Your task to perform on an android device: toggle show notifications on the lock screen Image 0: 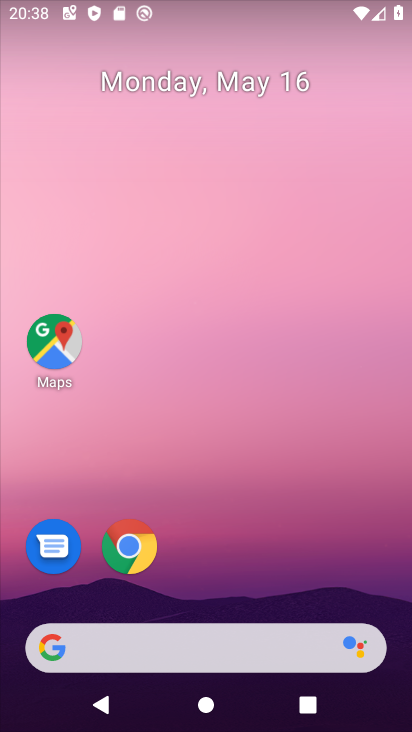
Step 0: drag from (268, 580) to (305, 247)
Your task to perform on an android device: toggle show notifications on the lock screen Image 1: 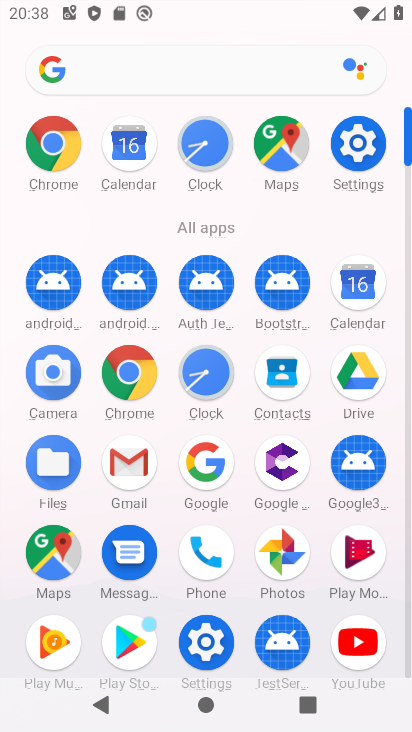
Step 1: click (354, 159)
Your task to perform on an android device: toggle show notifications on the lock screen Image 2: 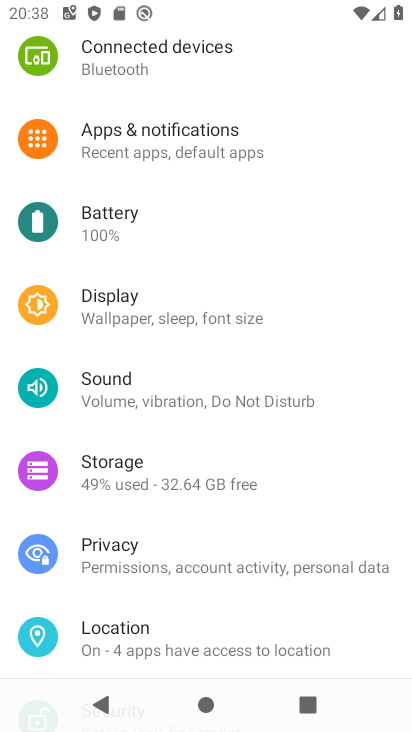
Step 2: drag from (266, 123) to (267, 204)
Your task to perform on an android device: toggle show notifications on the lock screen Image 3: 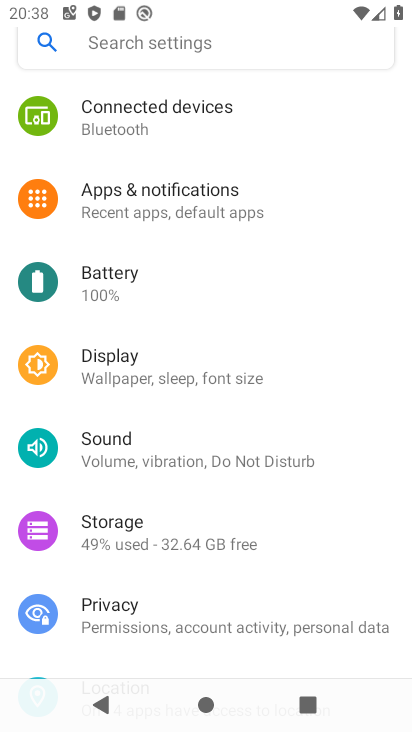
Step 3: click (256, 209)
Your task to perform on an android device: toggle show notifications on the lock screen Image 4: 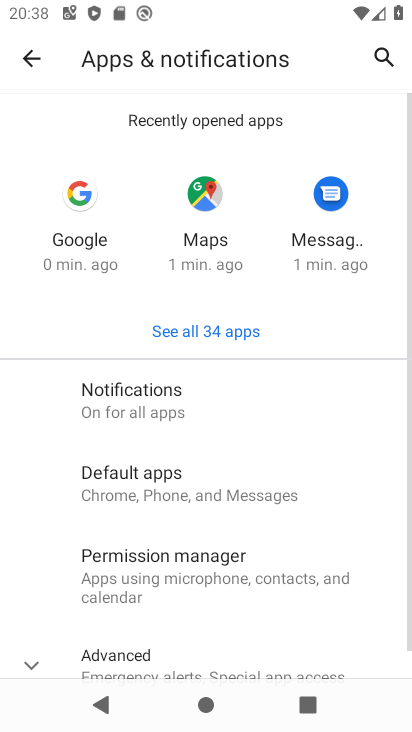
Step 4: click (231, 443)
Your task to perform on an android device: toggle show notifications on the lock screen Image 5: 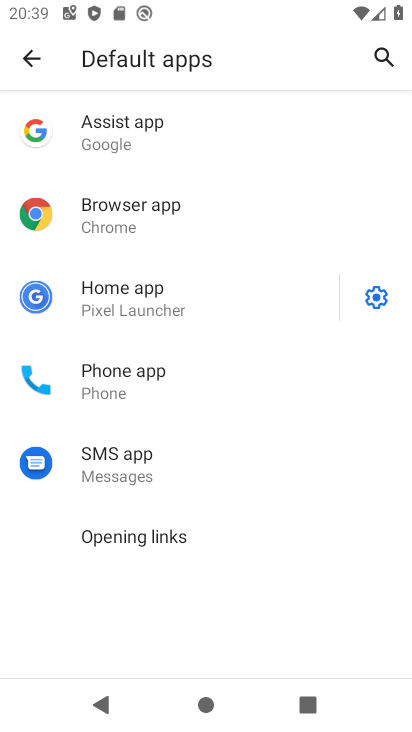
Step 5: click (22, 66)
Your task to perform on an android device: toggle show notifications on the lock screen Image 6: 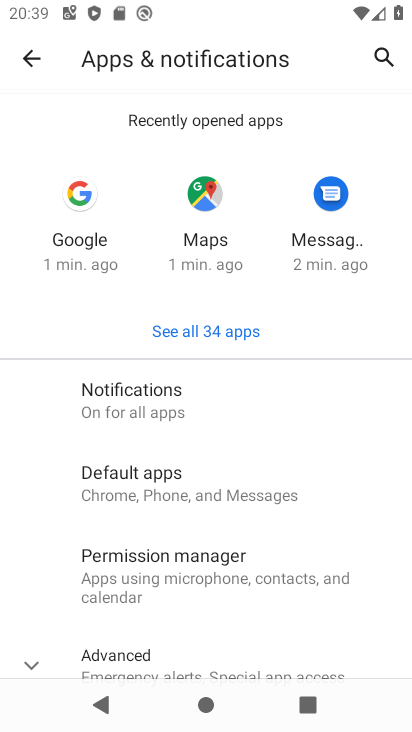
Step 6: click (247, 411)
Your task to perform on an android device: toggle show notifications on the lock screen Image 7: 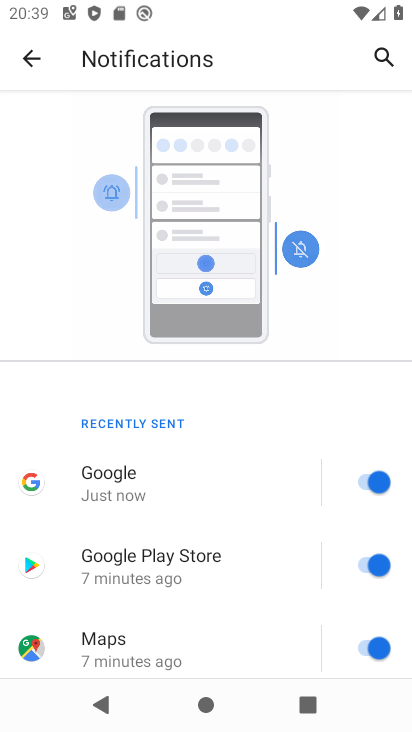
Step 7: drag from (267, 670) to (284, 349)
Your task to perform on an android device: toggle show notifications on the lock screen Image 8: 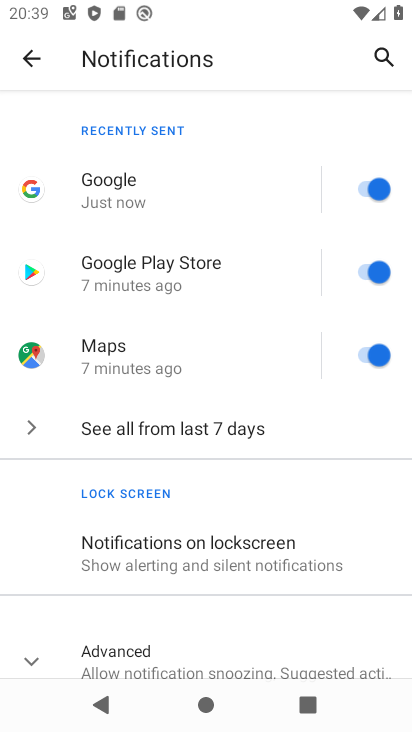
Step 8: click (275, 574)
Your task to perform on an android device: toggle show notifications on the lock screen Image 9: 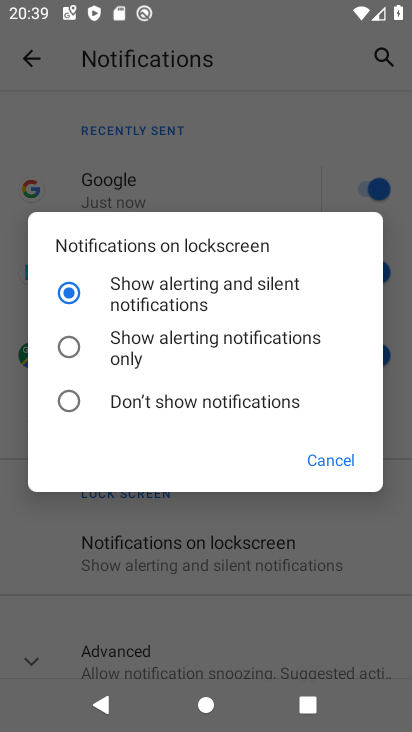
Step 9: click (166, 354)
Your task to perform on an android device: toggle show notifications on the lock screen Image 10: 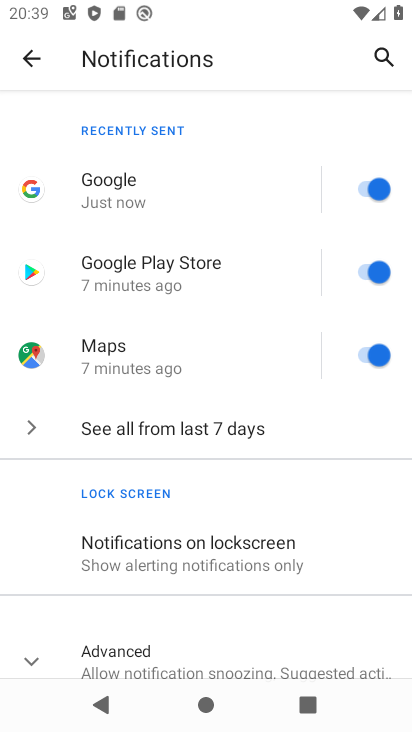
Step 10: task complete